Your task to perform on an android device: Go to CNN.com Image 0: 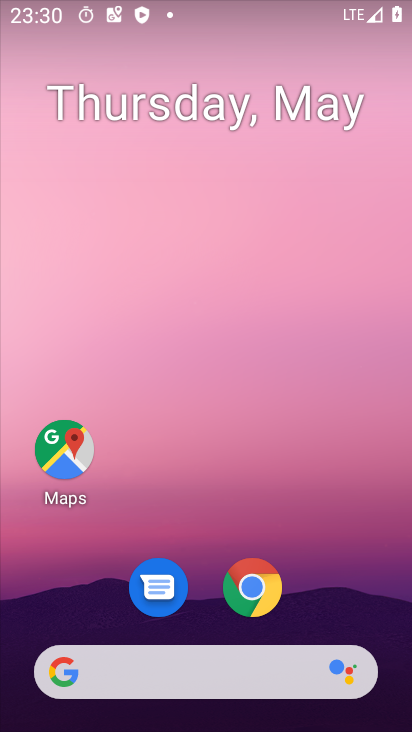
Step 0: click (260, 587)
Your task to perform on an android device: Go to CNN.com Image 1: 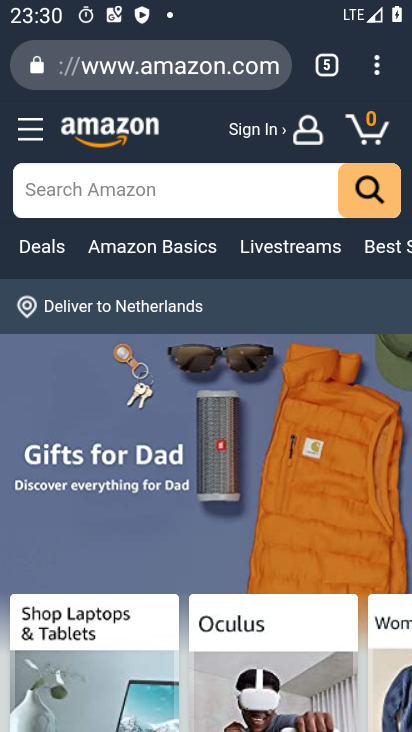
Step 1: click (144, 81)
Your task to perform on an android device: Go to CNN.com Image 2: 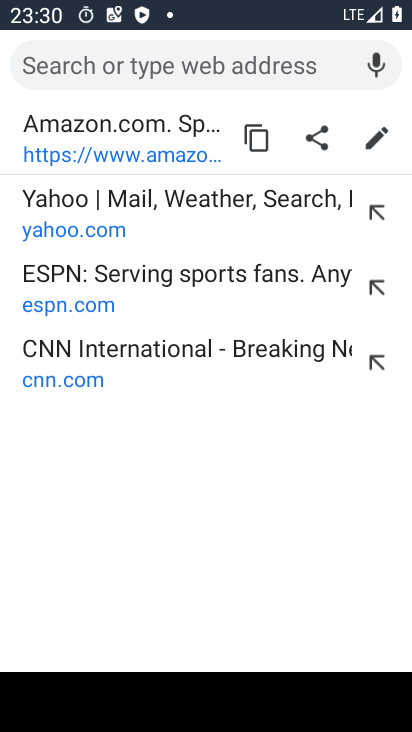
Step 2: click (61, 378)
Your task to perform on an android device: Go to CNN.com Image 3: 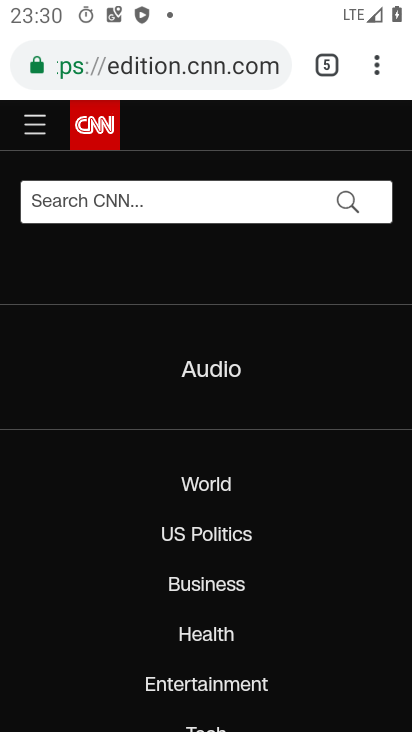
Step 3: task complete